Your task to perform on an android device: Open internet settings Image 0: 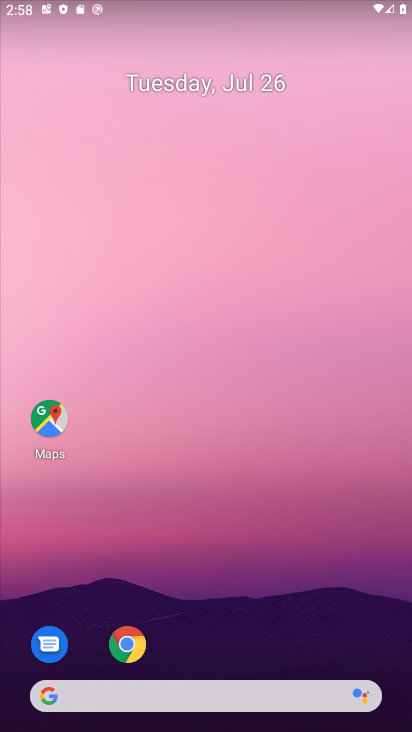
Step 0: press home button
Your task to perform on an android device: Open internet settings Image 1: 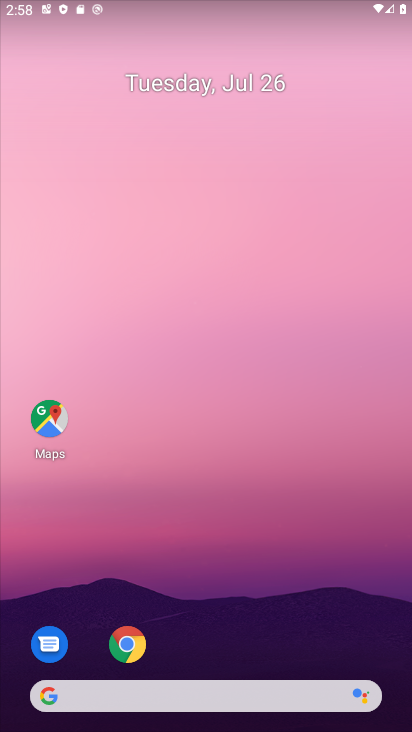
Step 1: drag from (276, 608) to (233, 72)
Your task to perform on an android device: Open internet settings Image 2: 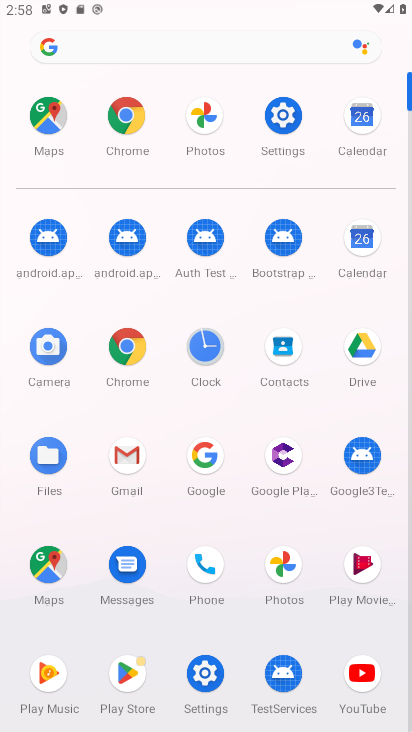
Step 2: click (273, 117)
Your task to perform on an android device: Open internet settings Image 3: 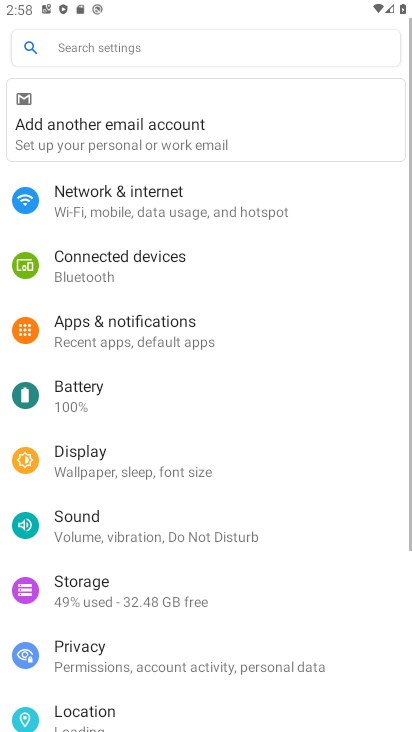
Step 3: click (155, 127)
Your task to perform on an android device: Open internet settings Image 4: 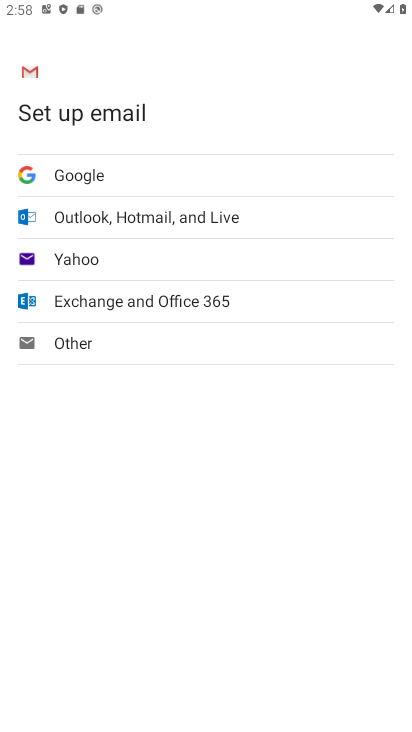
Step 4: press back button
Your task to perform on an android device: Open internet settings Image 5: 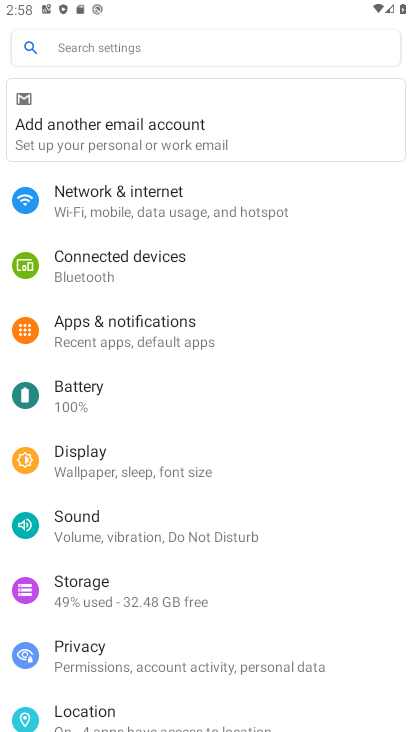
Step 5: click (139, 199)
Your task to perform on an android device: Open internet settings Image 6: 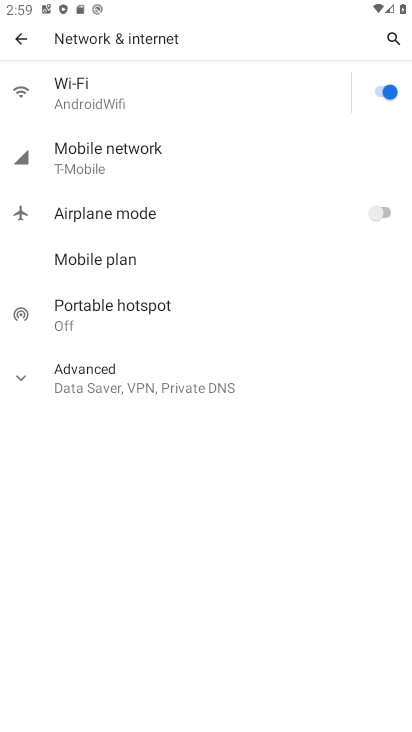
Step 6: task complete